Your task to perform on an android device: turn on javascript in the chrome app Image 0: 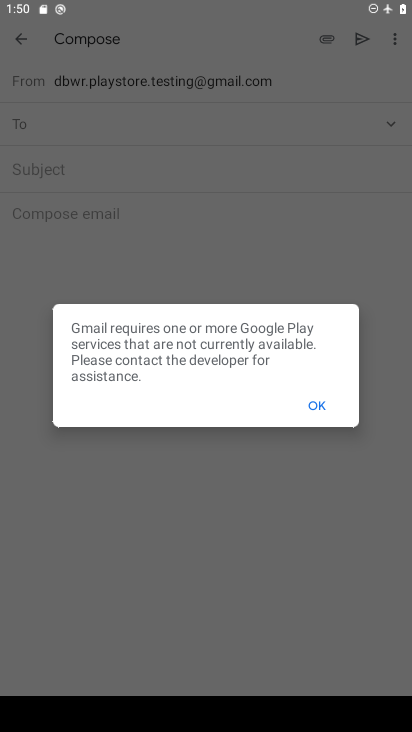
Step 0: click (302, 414)
Your task to perform on an android device: turn on javascript in the chrome app Image 1: 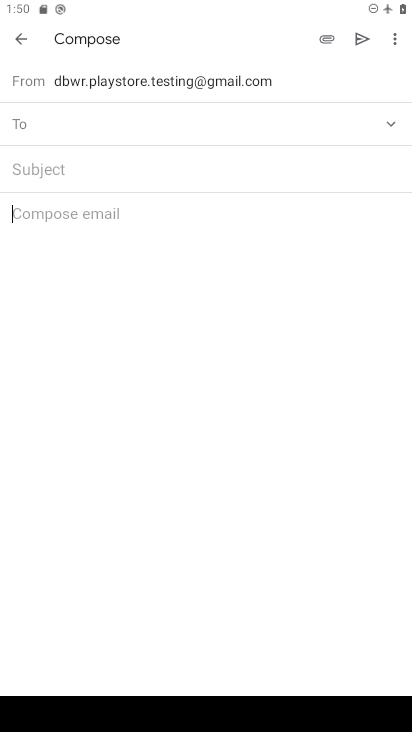
Step 1: drag from (180, 605) to (240, 354)
Your task to perform on an android device: turn on javascript in the chrome app Image 2: 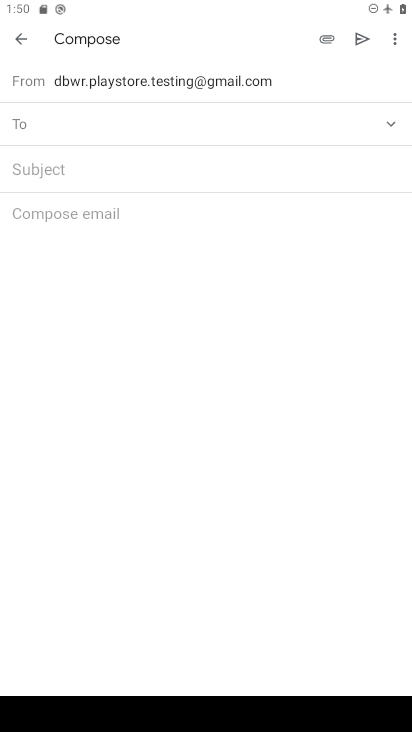
Step 2: drag from (218, 480) to (322, 223)
Your task to perform on an android device: turn on javascript in the chrome app Image 3: 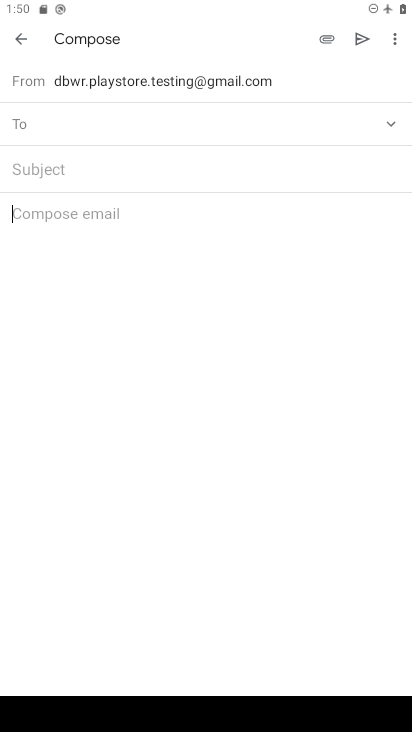
Step 3: press home button
Your task to perform on an android device: turn on javascript in the chrome app Image 4: 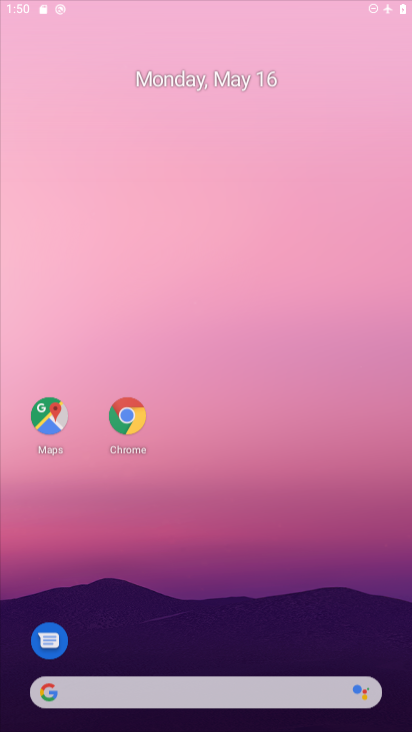
Step 4: drag from (191, 570) to (243, 191)
Your task to perform on an android device: turn on javascript in the chrome app Image 5: 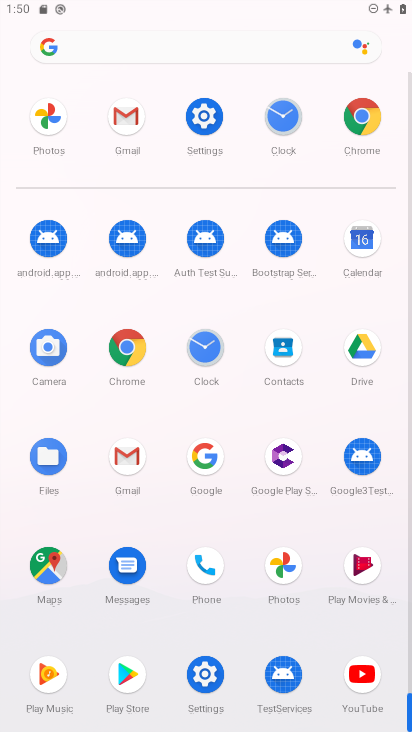
Step 5: click (366, 111)
Your task to perform on an android device: turn on javascript in the chrome app Image 6: 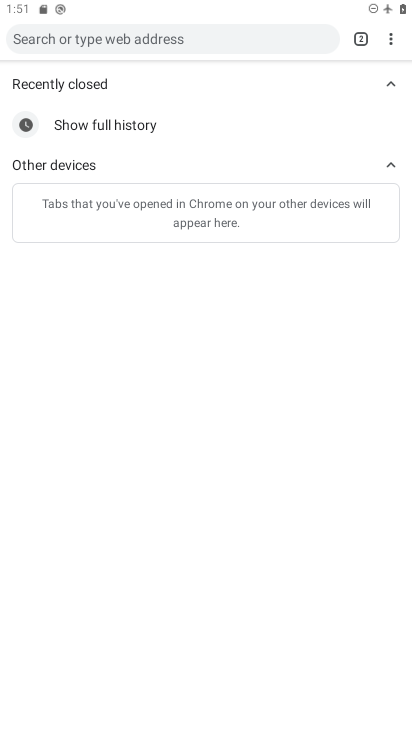
Step 6: click (386, 38)
Your task to perform on an android device: turn on javascript in the chrome app Image 7: 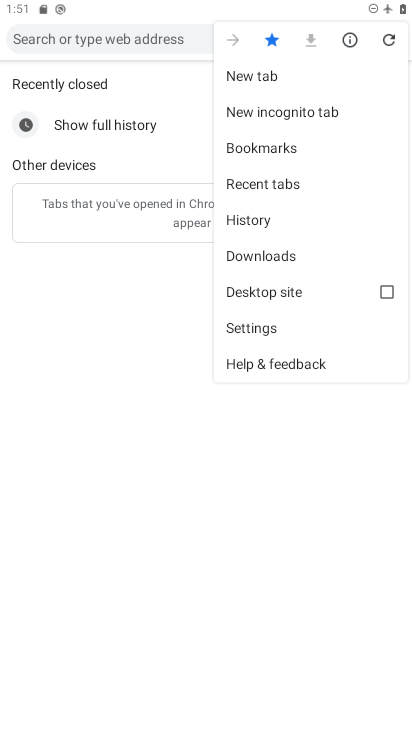
Step 7: click (275, 319)
Your task to perform on an android device: turn on javascript in the chrome app Image 8: 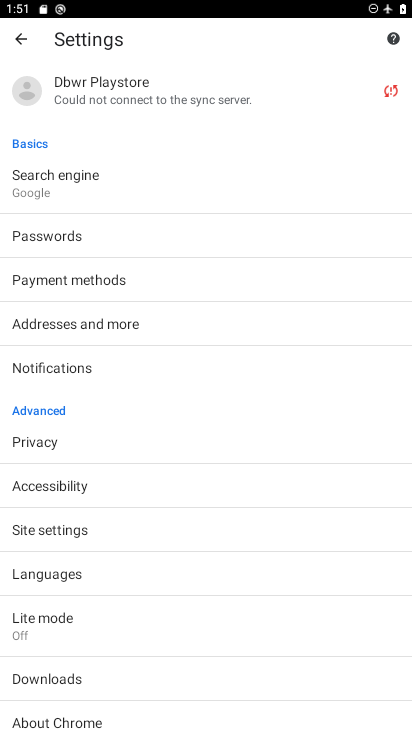
Step 8: click (72, 523)
Your task to perform on an android device: turn on javascript in the chrome app Image 9: 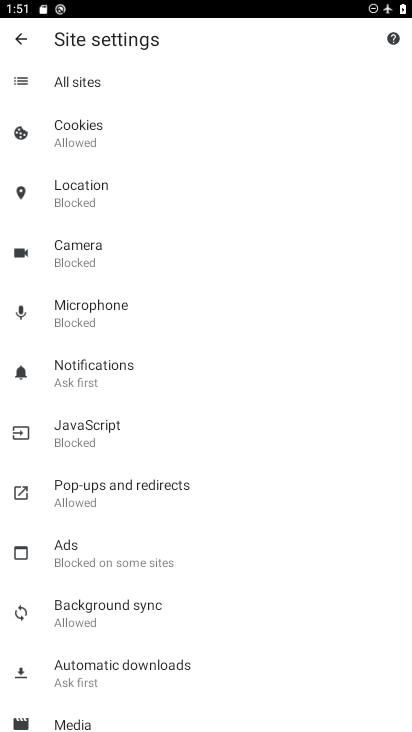
Step 9: drag from (151, 433) to (264, 234)
Your task to perform on an android device: turn on javascript in the chrome app Image 10: 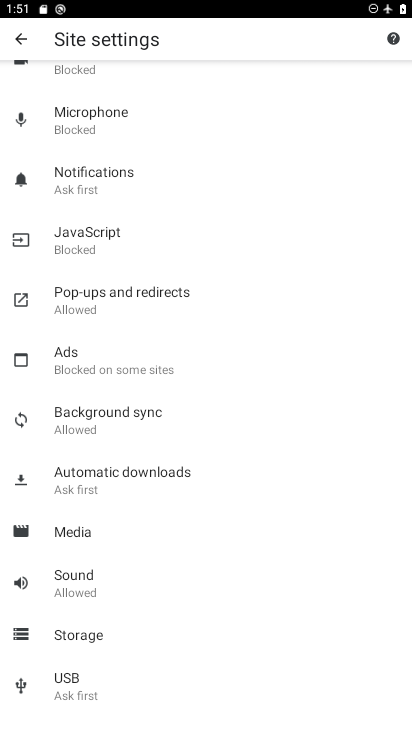
Step 10: click (147, 236)
Your task to perform on an android device: turn on javascript in the chrome app Image 11: 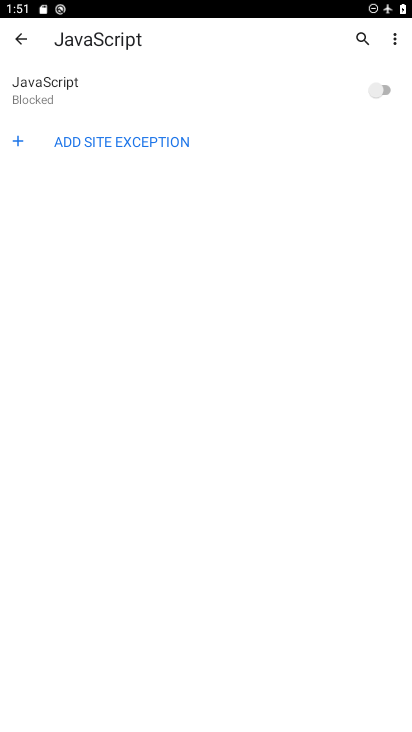
Step 11: click (380, 92)
Your task to perform on an android device: turn on javascript in the chrome app Image 12: 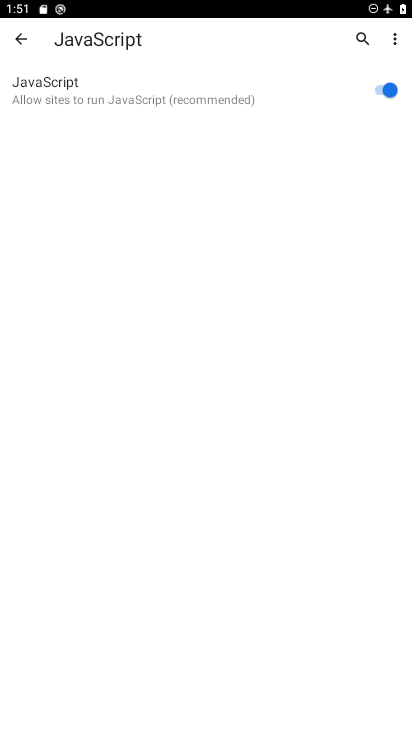
Step 12: task complete